Your task to perform on an android device: toggle pop-ups in chrome Image 0: 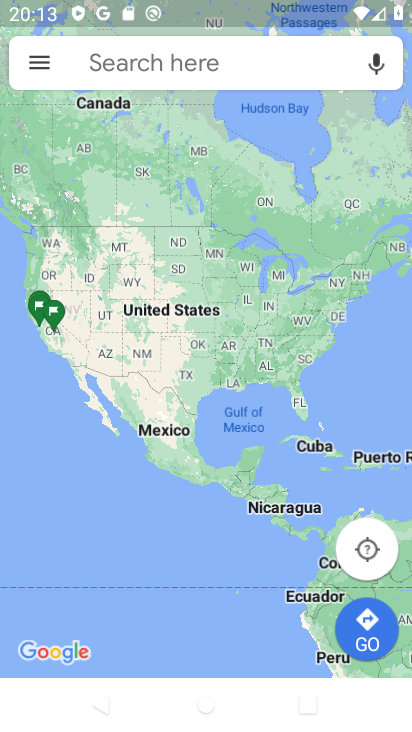
Step 0: press home button
Your task to perform on an android device: toggle pop-ups in chrome Image 1: 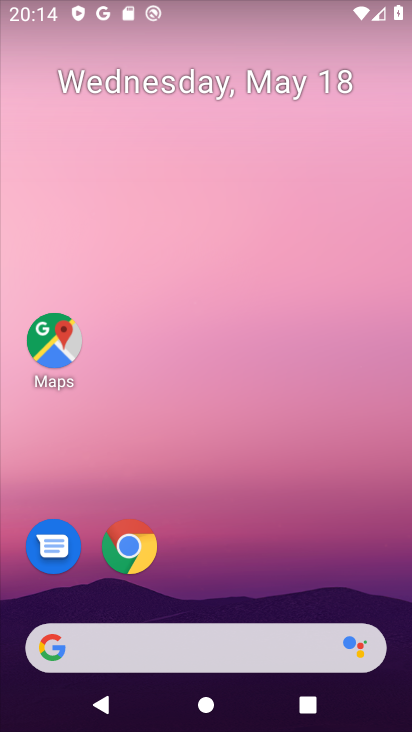
Step 1: click (144, 552)
Your task to perform on an android device: toggle pop-ups in chrome Image 2: 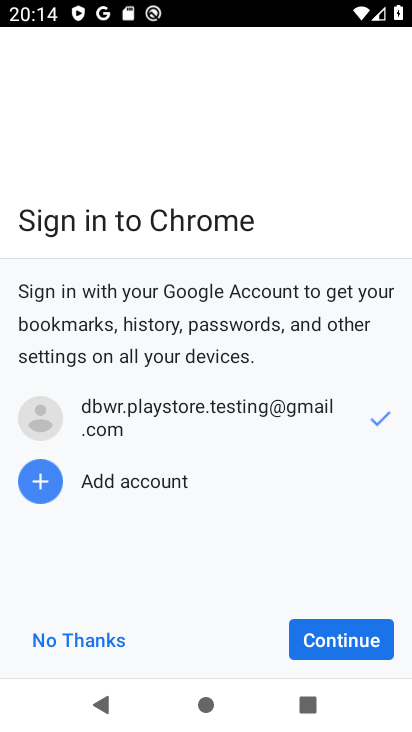
Step 2: click (309, 629)
Your task to perform on an android device: toggle pop-ups in chrome Image 3: 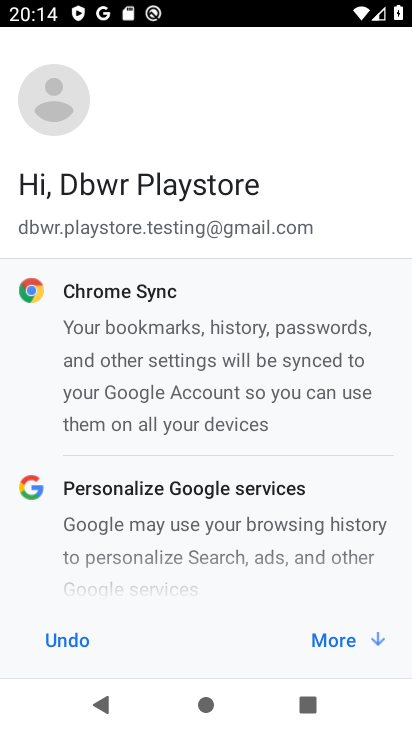
Step 3: click (309, 629)
Your task to perform on an android device: toggle pop-ups in chrome Image 4: 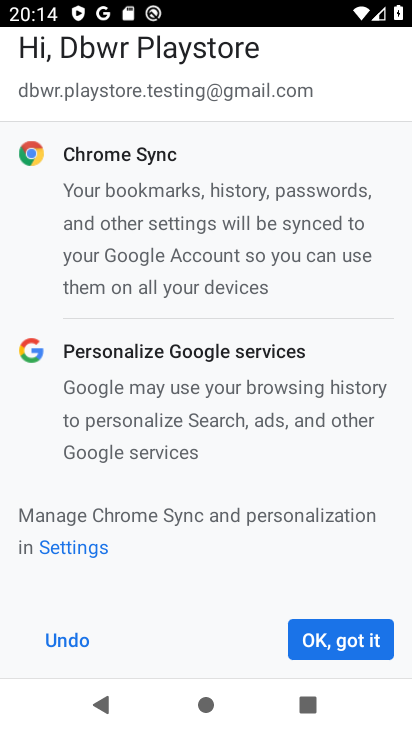
Step 4: click (309, 629)
Your task to perform on an android device: toggle pop-ups in chrome Image 5: 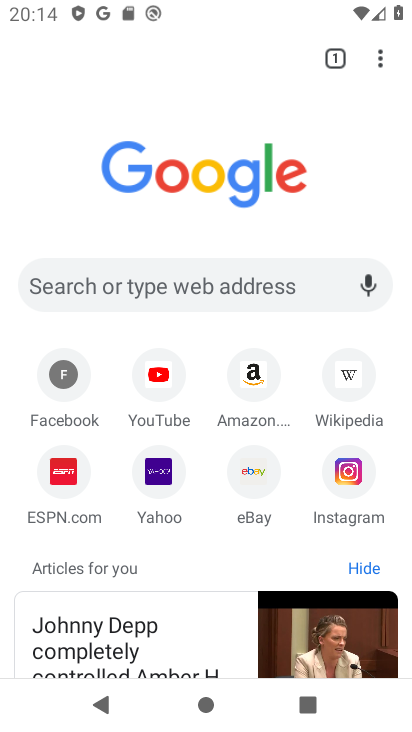
Step 5: click (382, 53)
Your task to perform on an android device: toggle pop-ups in chrome Image 6: 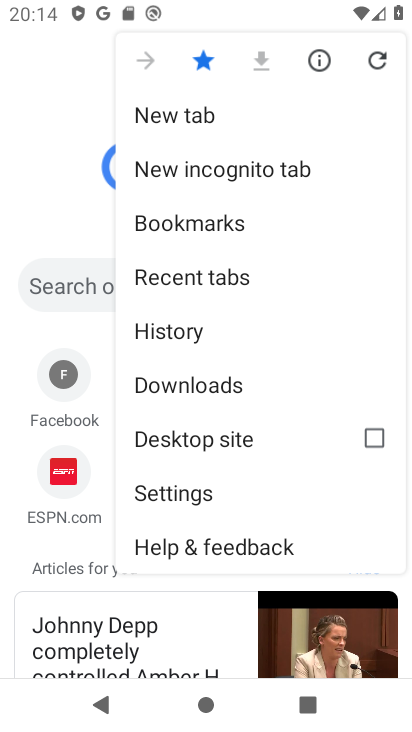
Step 6: click (173, 481)
Your task to perform on an android device: toggle pop-ups in chrome Image 7: 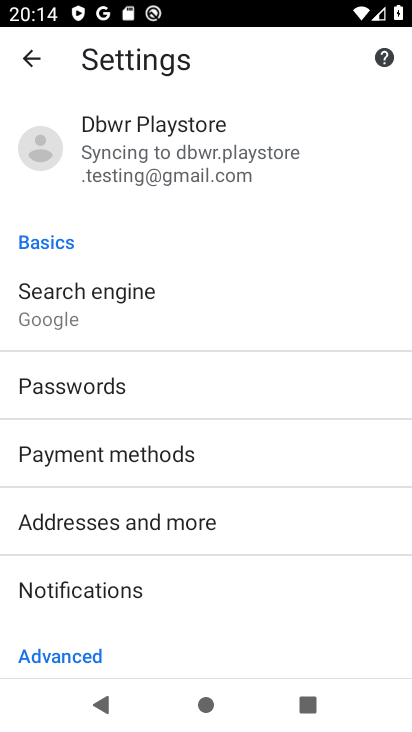
Step 7: drag from (229, 643) to (252, 127)
Your task to perform on an android device: toggle pop-ups in chrome Image 8: 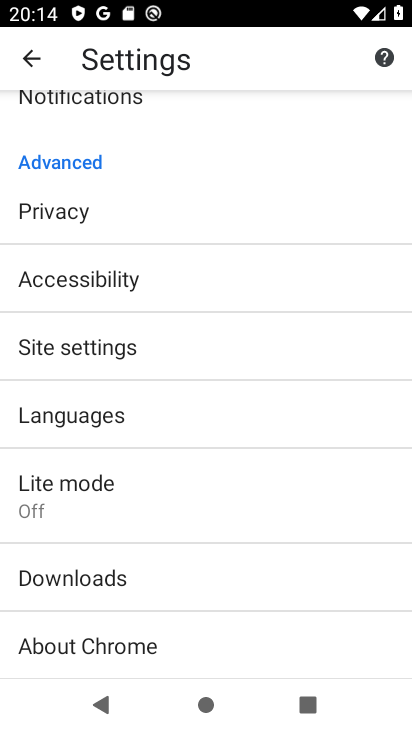
Step 8: click (227, 369)
Your task to perform on an android device: toggle pop-ups in chrome Image 9: 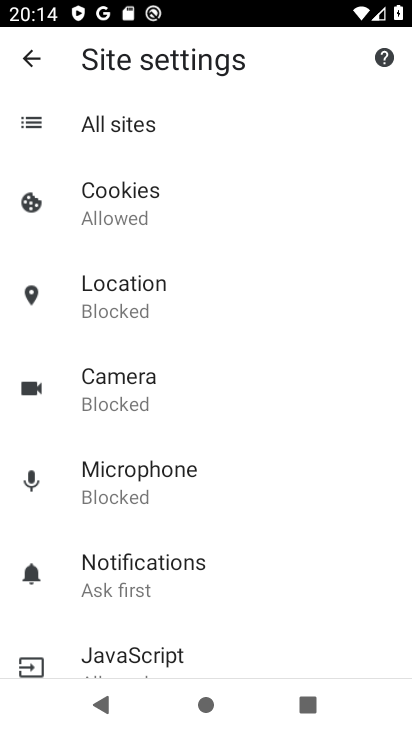
Step 9: drag from (257, 607) to (252, 175)
Your task to perform on an android device: toggle pop-ups in chrome Image 10: 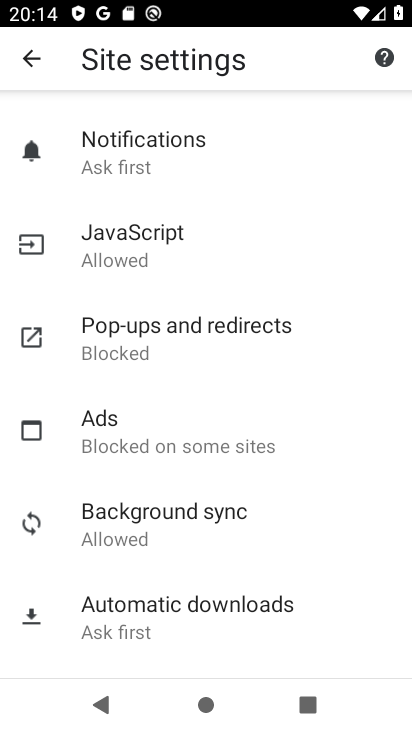
Step 10: click (257, 340)
Your task to perform on an android device: toggle pop-ups in chrome Image 11: 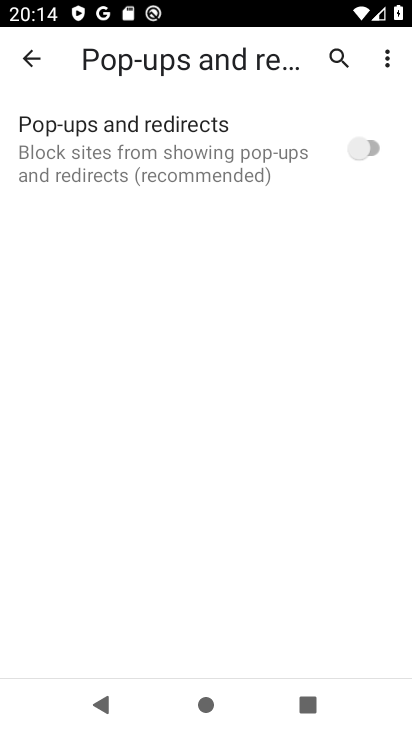
Step 11: click (380, 174)
Your task to perform on an android device: toggle pop-ups in chrome Image 12: 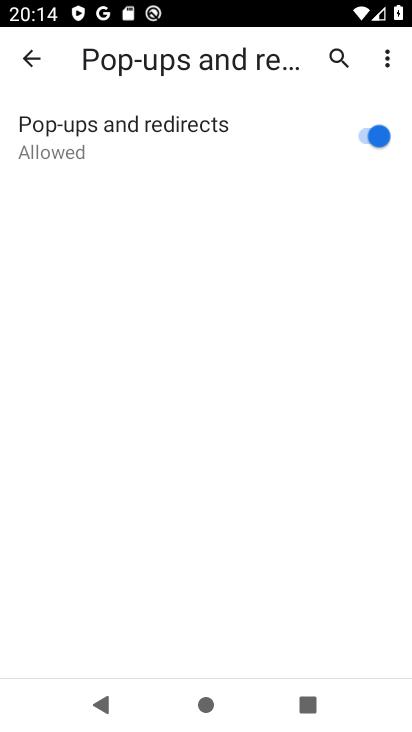
Step 12: task complete